Your task to perform on an android device: Open Yahoo.com Image 0: 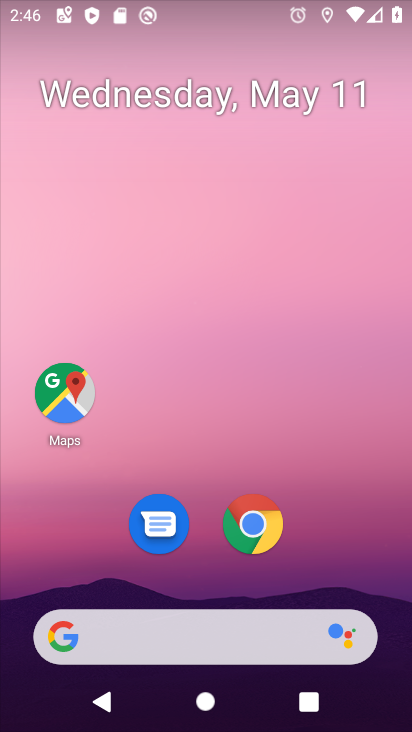
Step 0: click (271, 634)
Your task to perform on an android device: Open Yahoo.com Image 1: 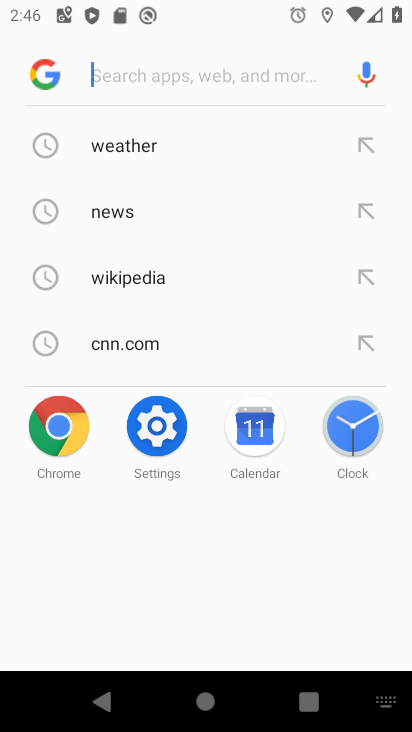
Step 1: type "yahoo.com"
Your task to perform on an android device: Open Yahoo.com Image 2: 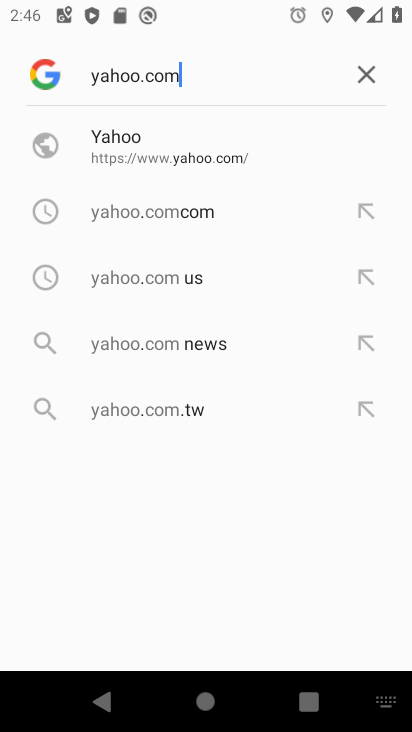
Step 2: click (156, 158)
Your task to perform on an android device: Open Yahoo.com Image 3: 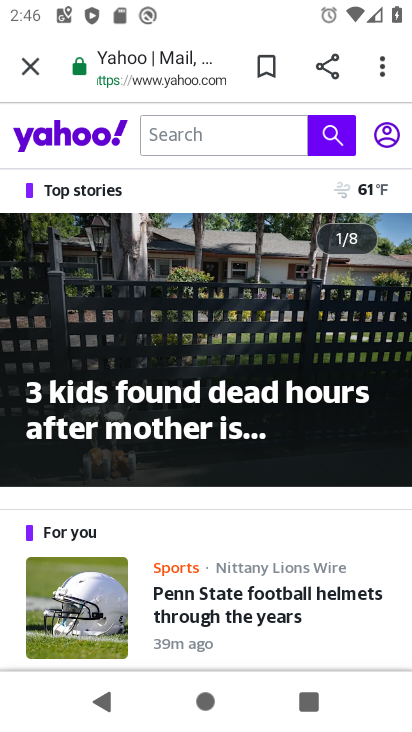
Step 3: task complete